Your task to perform on an android device: Go to location settings Image 0: 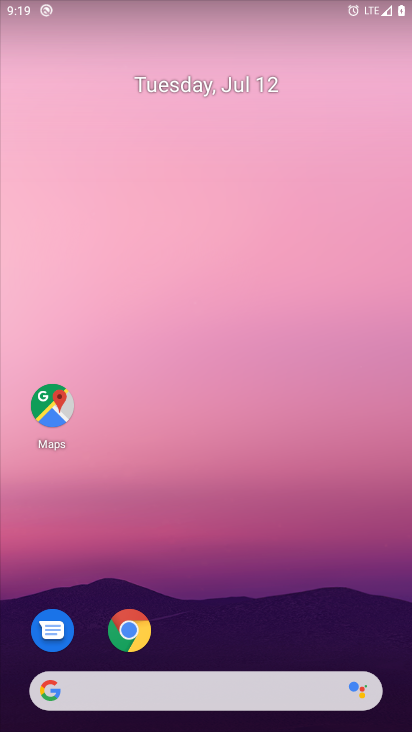
Step 0: press home button
Your task to perform on an android device: Go to location settings Image 1: 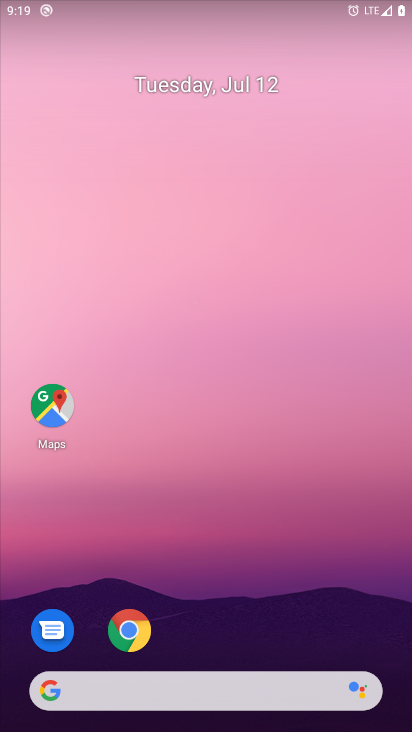
Step 1: drag from (274, 634) to (226, 176)
Your task to perform on an android device: Go to location settings Image 2: 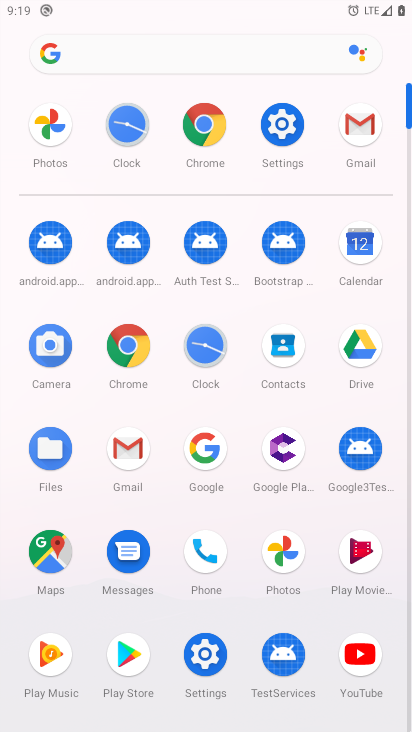
Step 2: click (271, 126)
Your task to perform on an android device: Go to location settings Image 3: 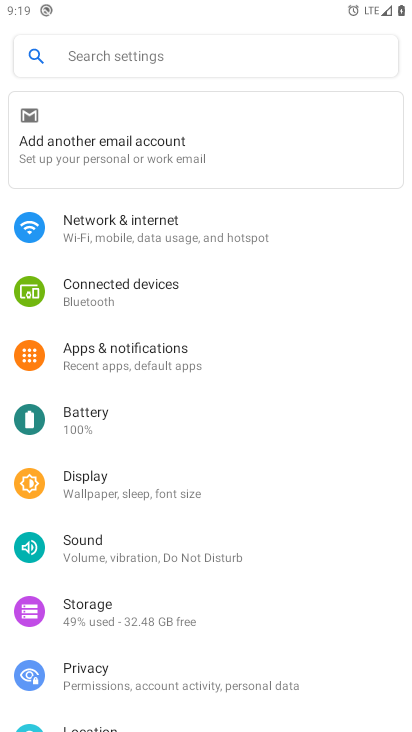
Step 3: drag from (319, 651) to (312, 329)
Your task to perform on an android device: Go to location settings Image 4: 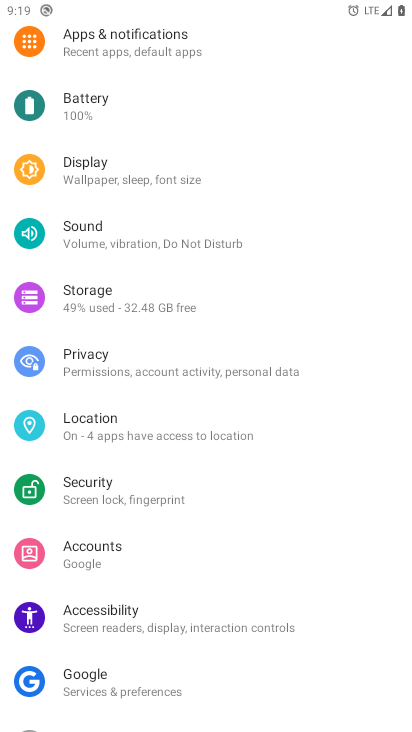
Step 4: drag from (180, 665) to (215, 598)
Your task to perform on an android device: Go to location settings Image 5: 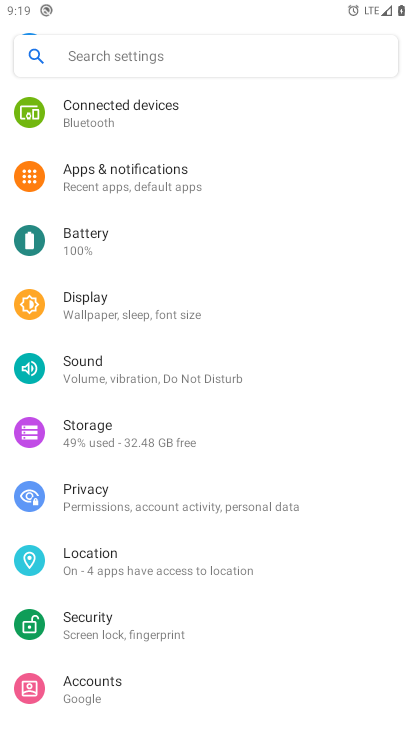
Step 5: click (136, 558)
Your task to perform on an android device: Go to location settings Image 6: 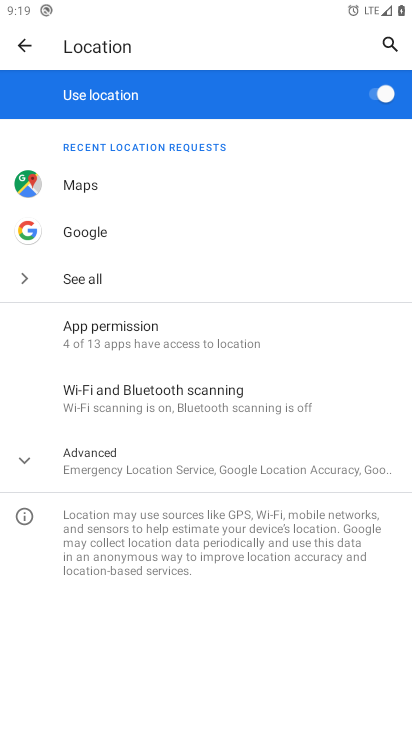
Step 6: task complete